Your task to perform on an android device: Open eBay Image 0: 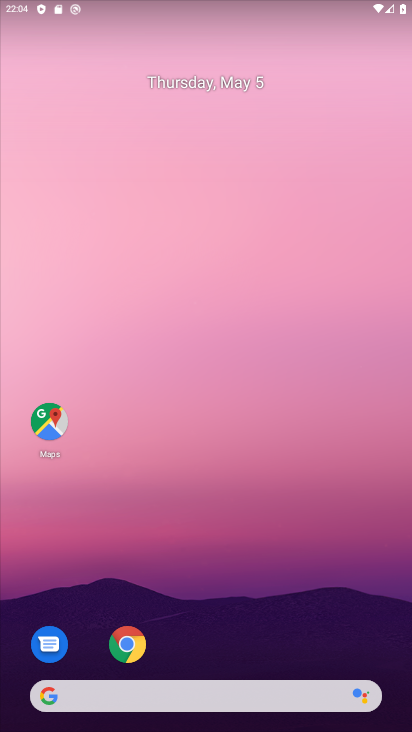
Step 0: drag from (205, 676) to (267, 67)
Your task to perform on an android device: Open eBay Image 1: 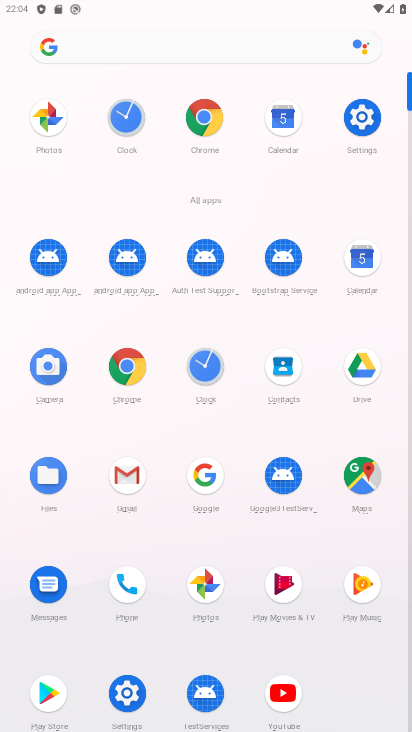
Step 1: click (201, 122)
Your task to perform on an android device: Open eBay Image 2: 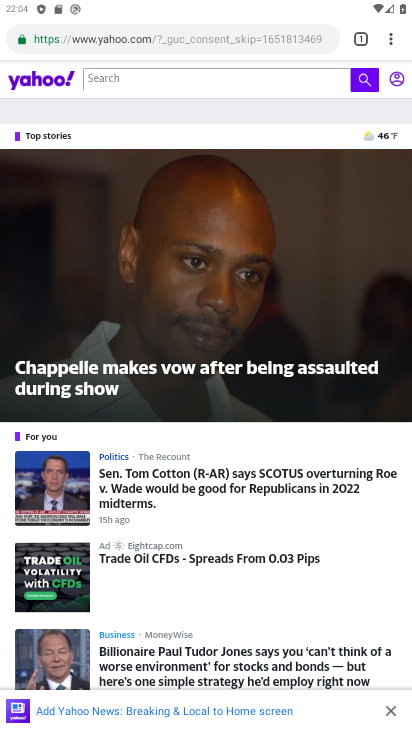
Step 2: click (362, 41)
Your task to perform on an android device: Open eBay Image 3: 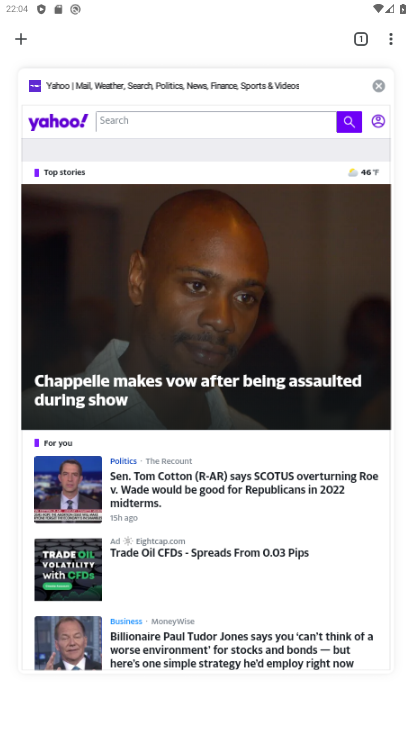
Step 3: click (17, 38)
Your task to perform on an android device: Open eBay Image 4: 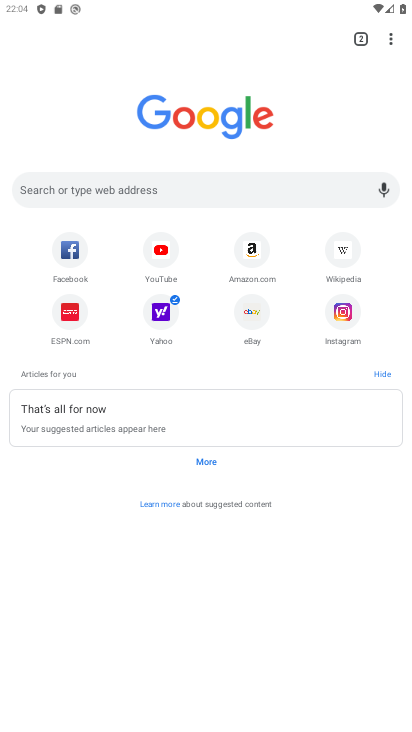
Step 4: click (252, 310)
Your task to perform on an android device: Open eBay Image 5: 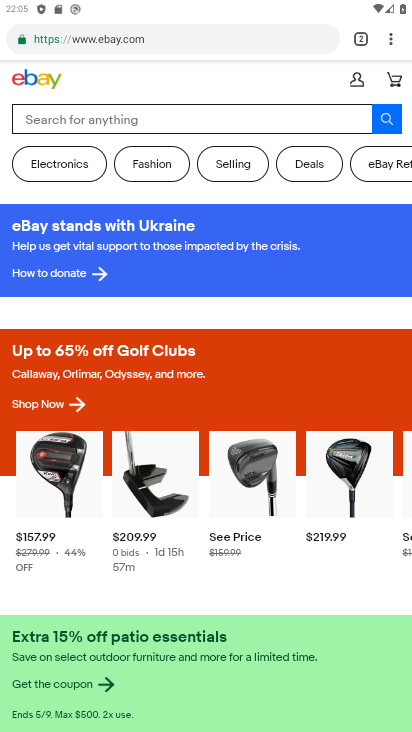
Step 5: task complete